Your task to perform on an android device: add a label to a message in the gmail app Image 0: 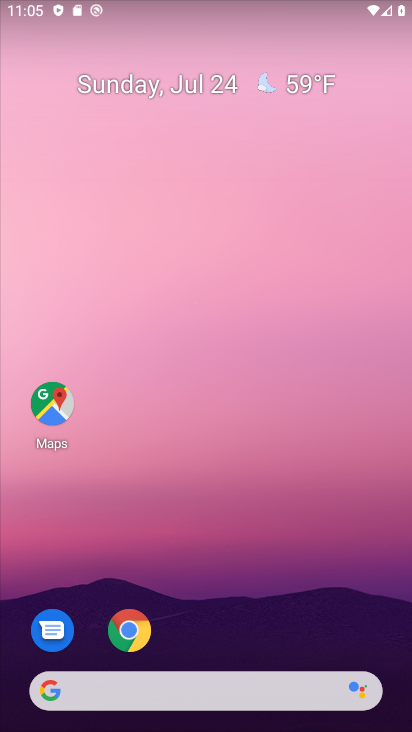
Step 0: press home button
Your task to perform on an android device: add a label to a message in the gmail app Image 1: 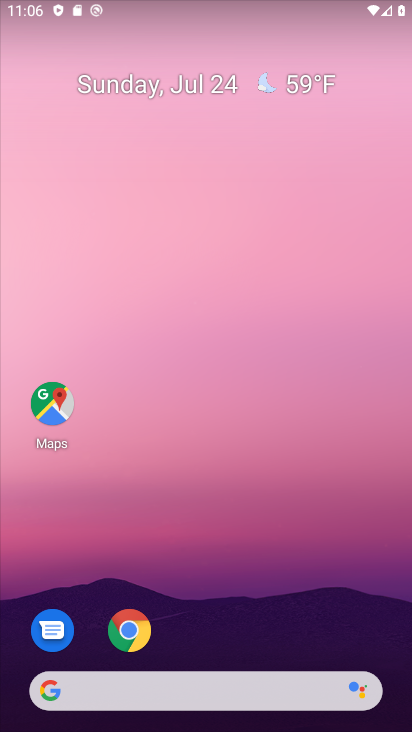
Step 1: drag from (220, 645) to (241, 114)
Your task to perform on an android device: add a label to a message in the gmail app Image 2: 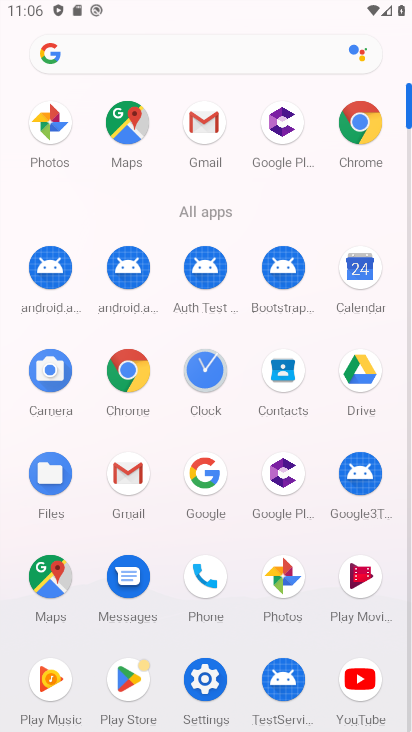
Step 2: click (127, 472)
Your task to perform on an android device: add a label to a message in the gmail app Image 3: 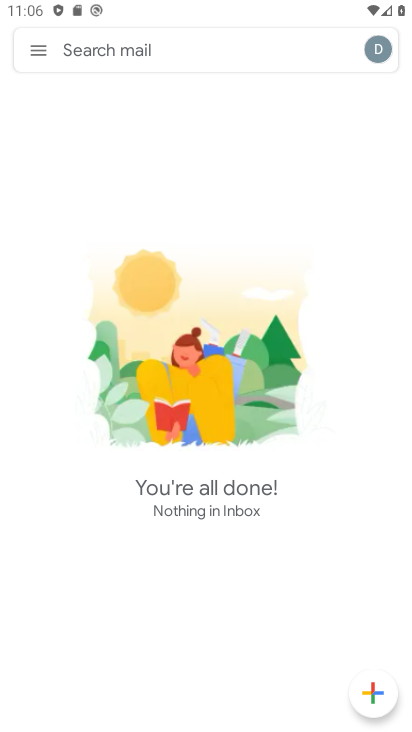
Step 3: task complete